Your task to perform on an android device: see sites visited before in the chrome app Image 0: 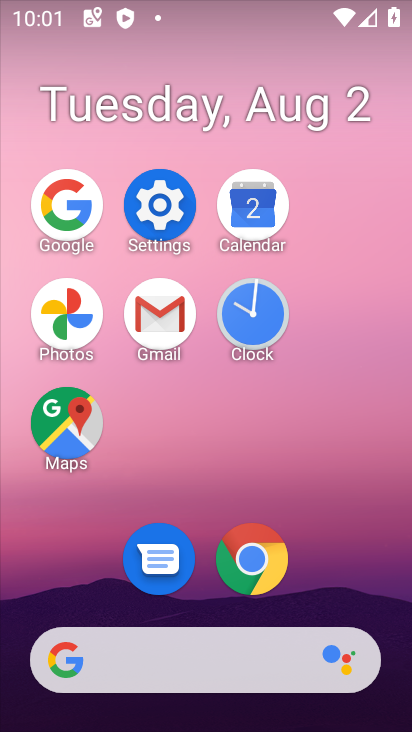
Step 0: click (266, 545)
Your task to perform on an android device: see sites visited before in the chrome app Image 1: 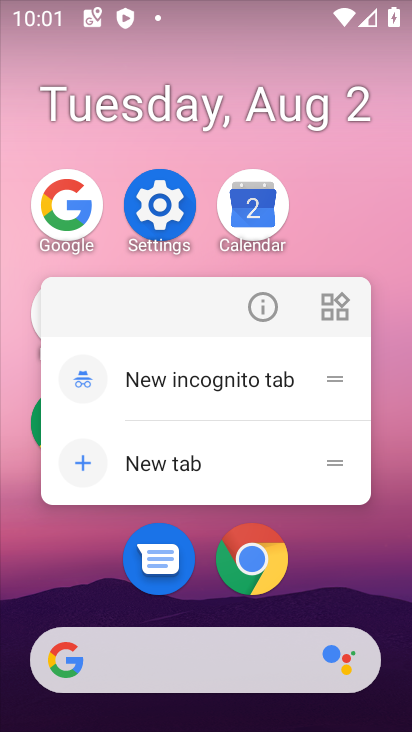
Step 1: click (266, 545)
Your task to perform on an android device: see sites visited before in the chrome app Image 2: 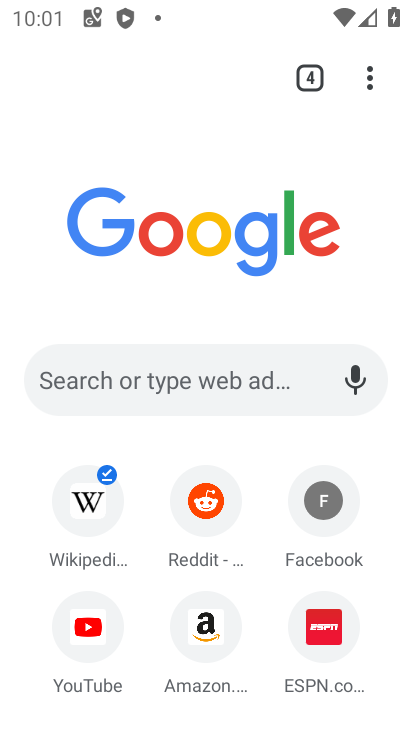
Step 2: click (365, 69)
Your task to perform on an android device: see sites visited before in the chrome app Image 3: 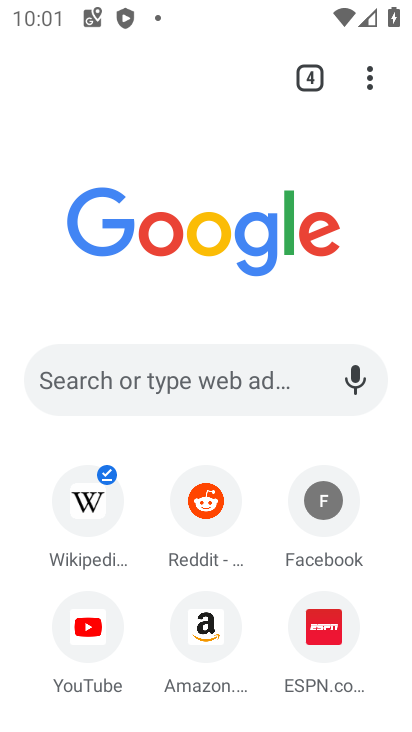
Step 3: click (364, 86)
Your task to perform on an android device: see sites visited before in the chrome app Image 4: 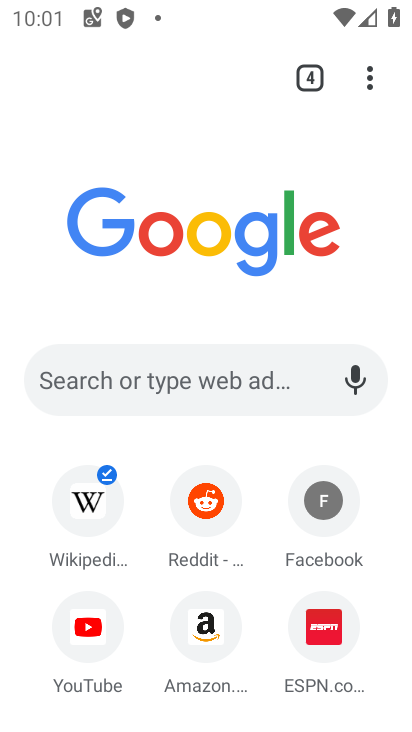
Step 4: click (361, 78)
Your task to perform on an android device: see sites visited before in the chrome app Image 5: 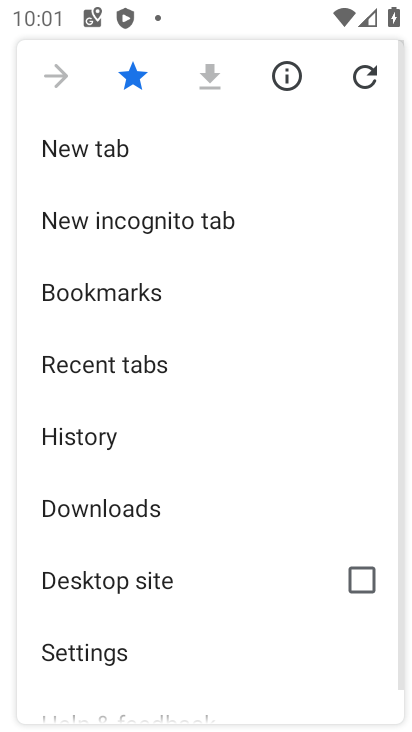
Step 5: click (197, 381)
Your task to perform on an android device: see sites visited before in the chrome app Image 6: 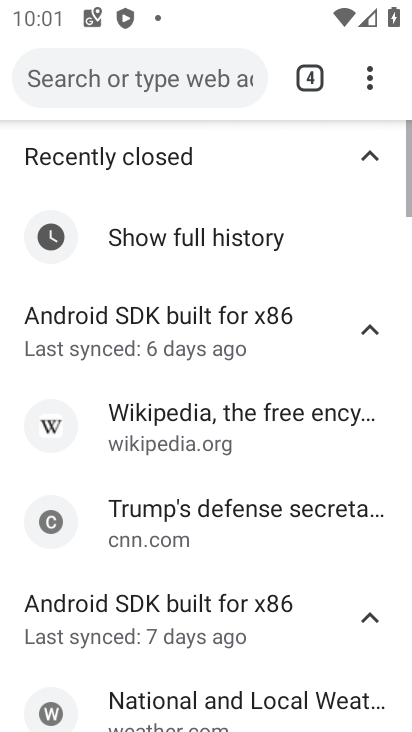
Step 6: task complete